Your task to perform on an android device: move an email to a new category in the gmail app Image 0: 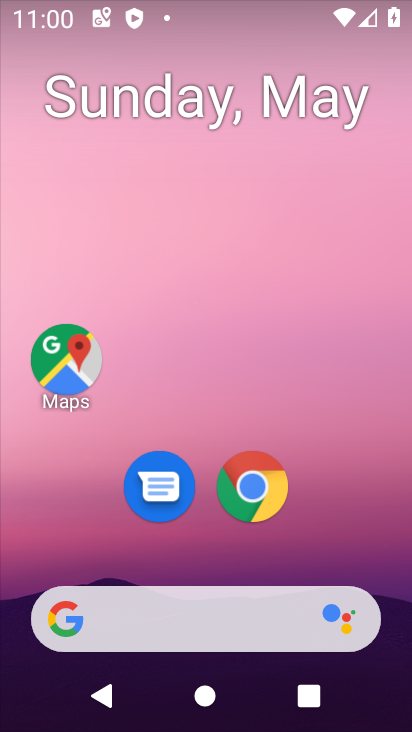
Step 0: drag from (295, 568) to (260, 81)
Your task to perform on an android device: move an email to a new category in the gmail app Image 1: 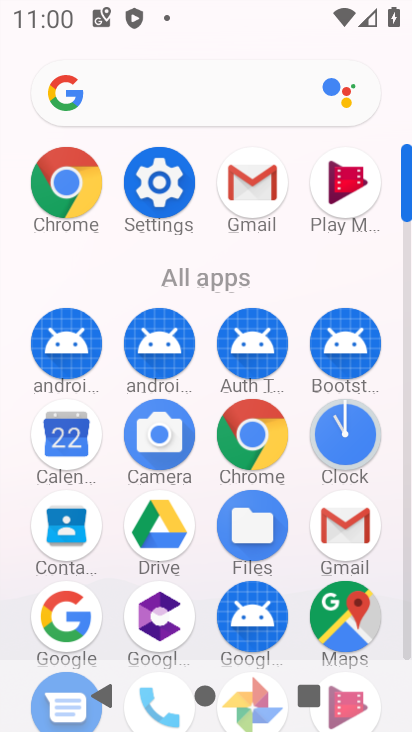
Step 1: click (260, 195)
Your task to perform on an android device: move an email to a new category in the gmail app Image 2: 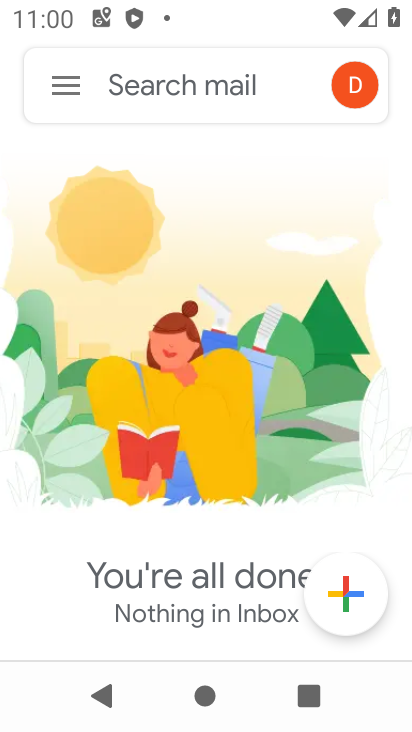
Step 2: click (62, 92)
Your task to perform on an android device: move an email to a new category in the gmail app Image 3: 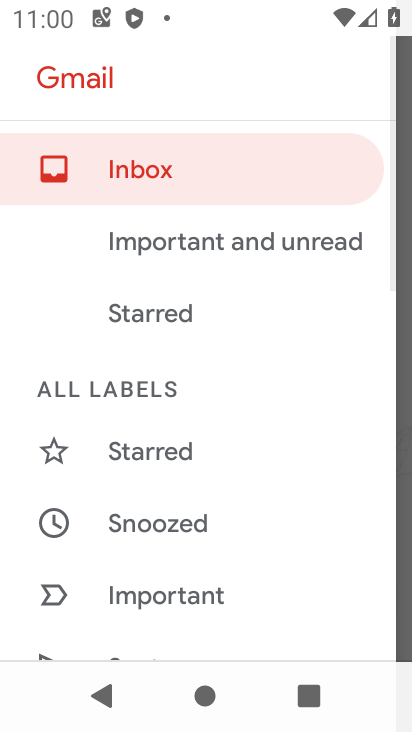
Step 3: drag from (163, 549) to (197, 209)
Your task to perform on an android device: move an email to a new category in the gmail app Image 4: 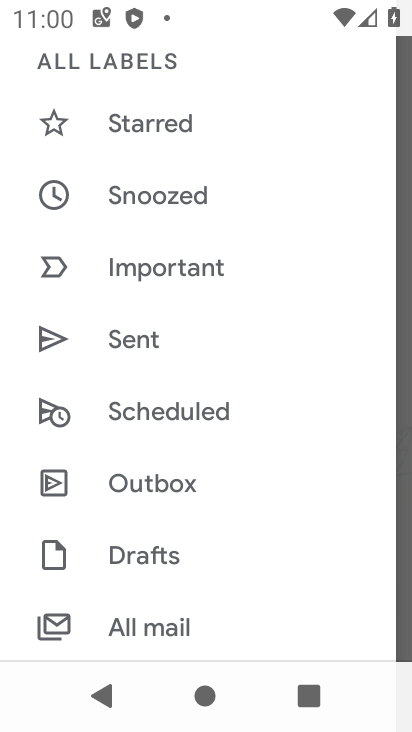
Step 4: click (156, 634)
Your task to perform on an android device: move an email to a new category in the gmail app Image 5: 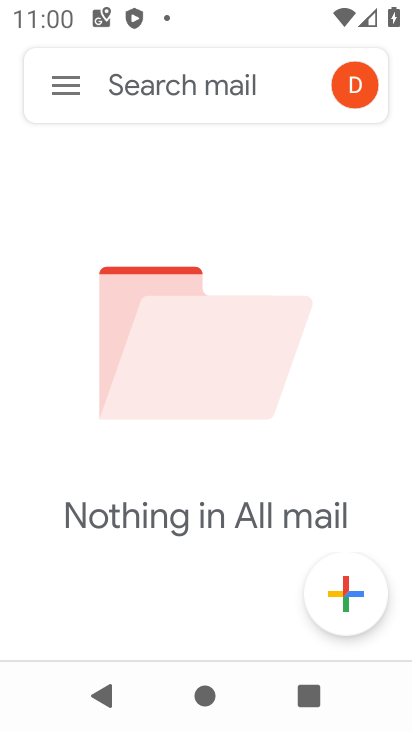
Step 5: task complete